Your task to perform on an android device: Add "alienware aurora" to the cart on costco.com Image 0: 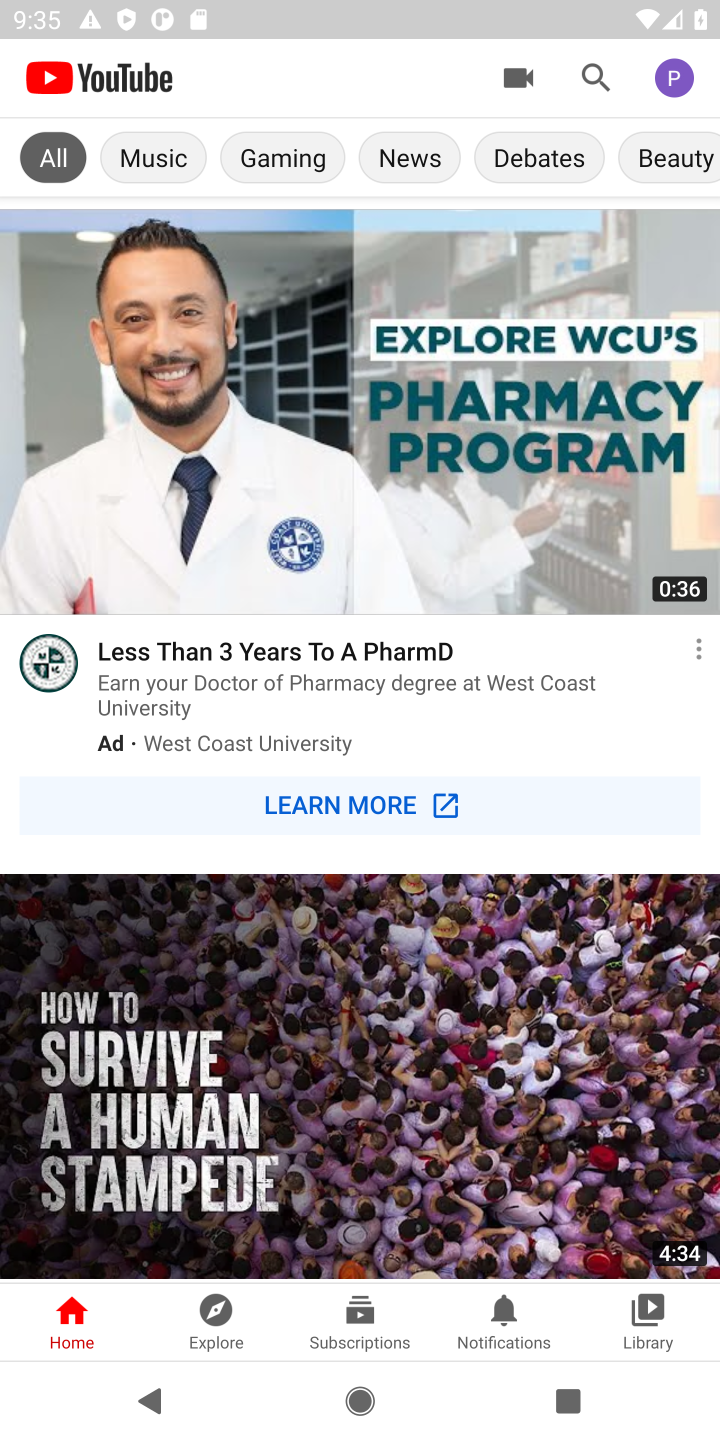
Step 0: press home button
Your task to perform on an android device: Add "alienware aurora" to the cart on costco.com Image 1: 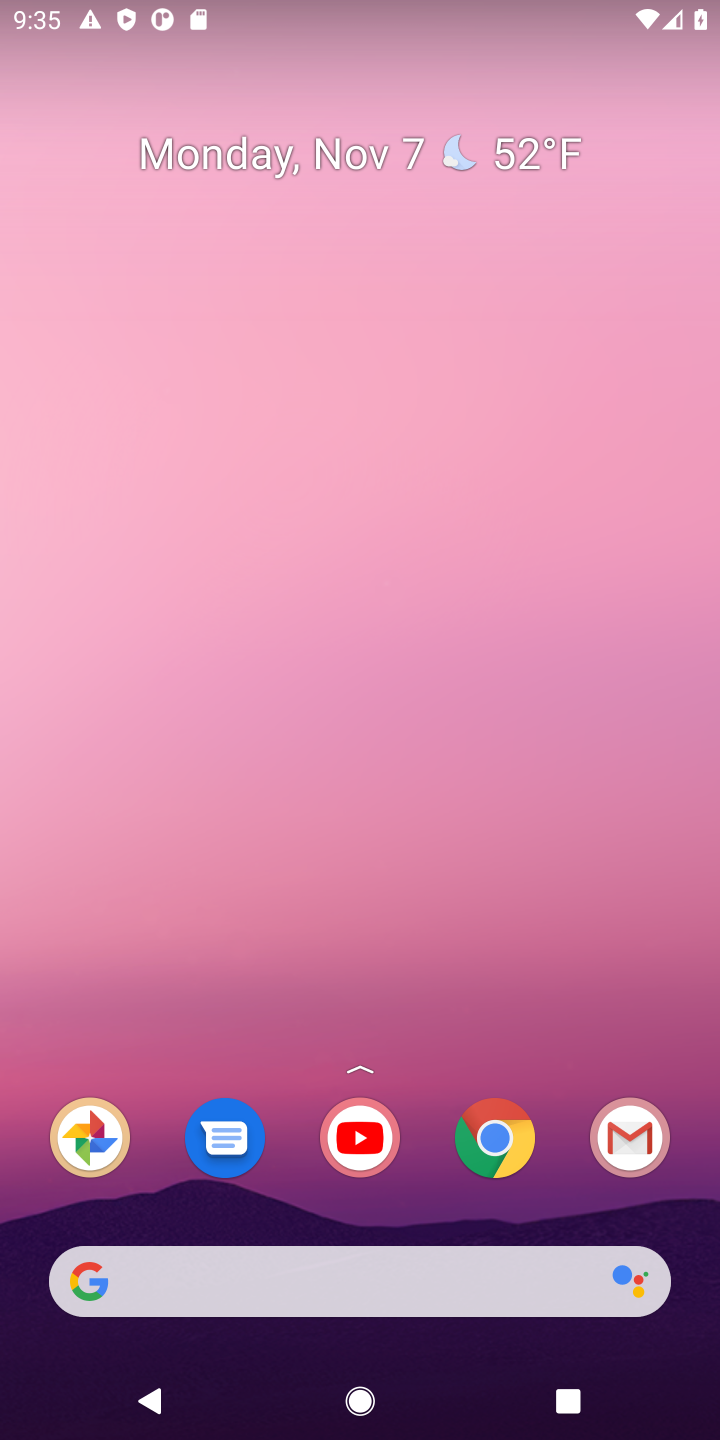
Step 1: drag from (419, 1201) to (400, 131)
Your task to perform on an android device: Add "alienware aurora" to the cart on costco.com Image 2: 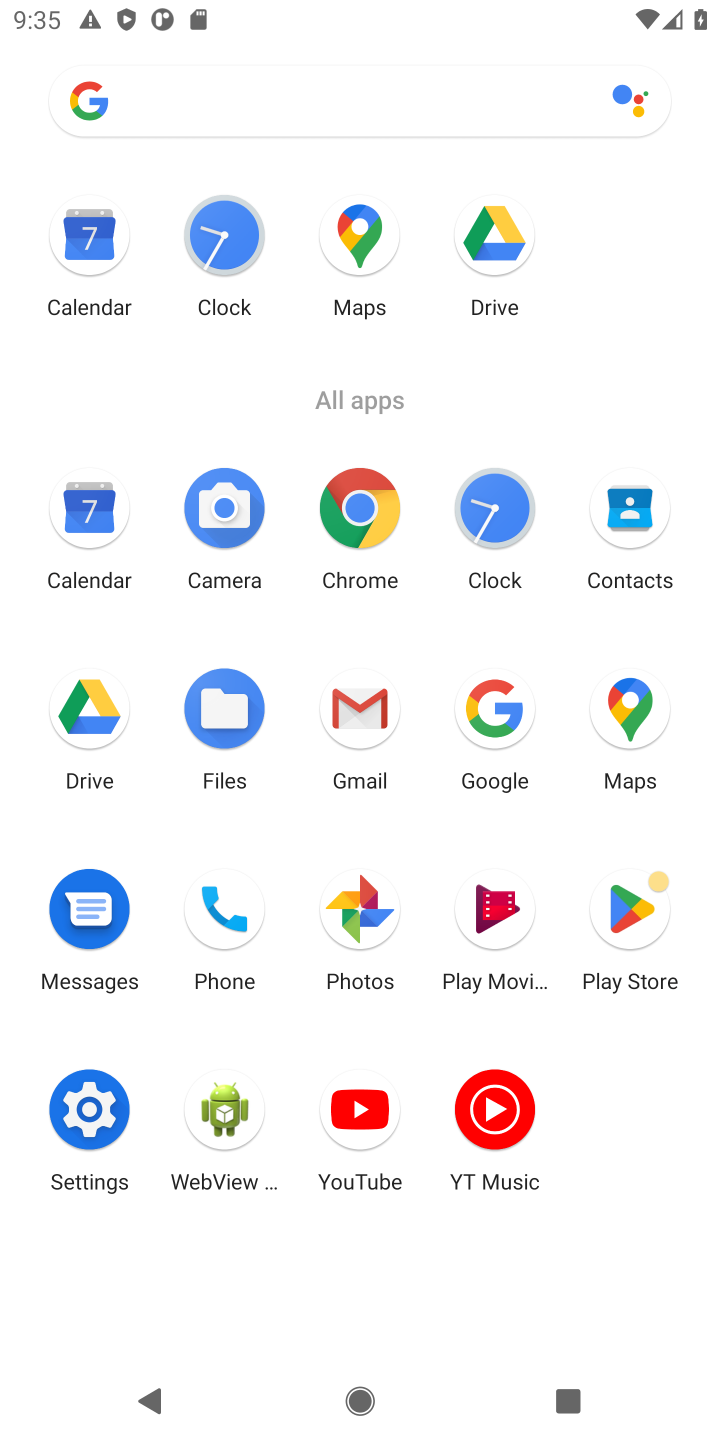
Step 2: click (354, 506)
Your task to perform on an android device: Add "alienware aurora" to the cart on costco.com Image 3: 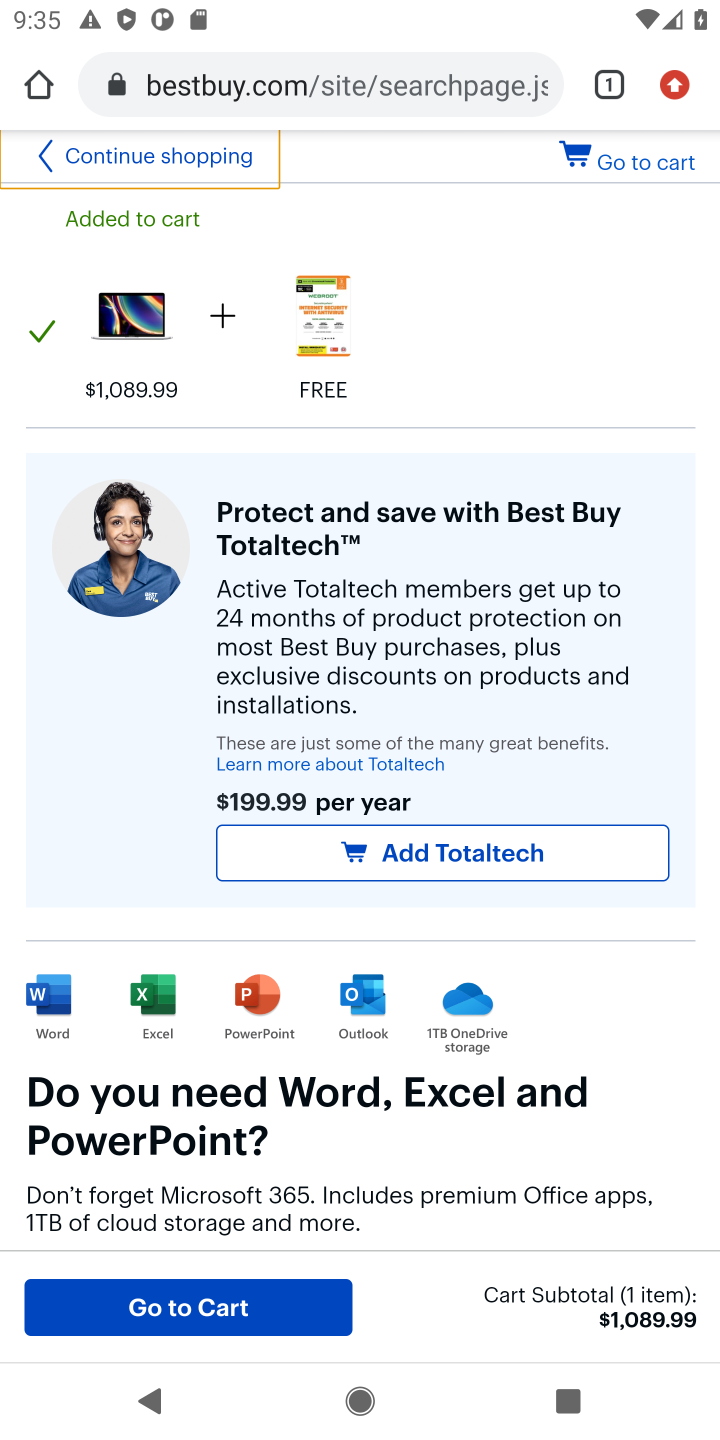
Step 3: click (388, 70)
Your task to perform on an android device: Add "alienware aurora" to the cart on costco.com Image 4: 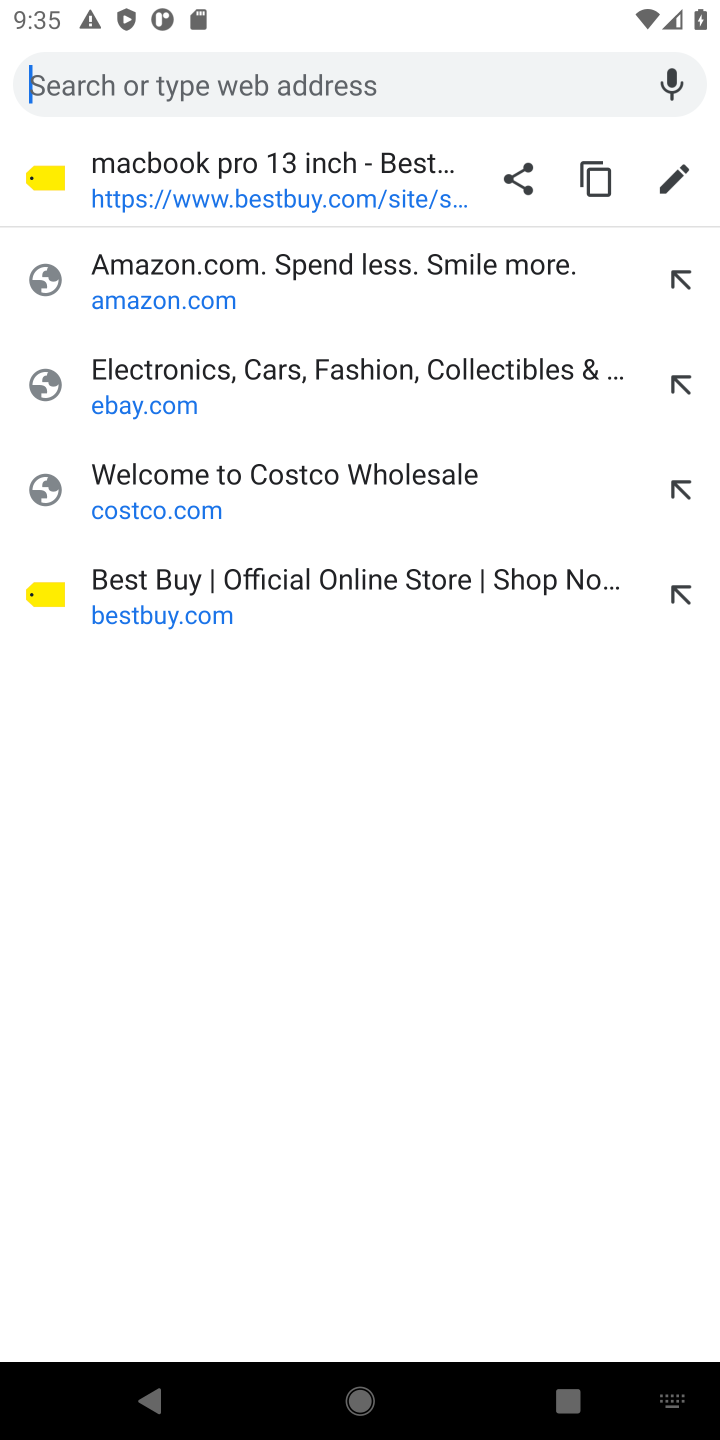
Step 4: click (140, 504)
Your task to perform on an android device: Add "alienware aurora" to the cart on costco.com Image 5: 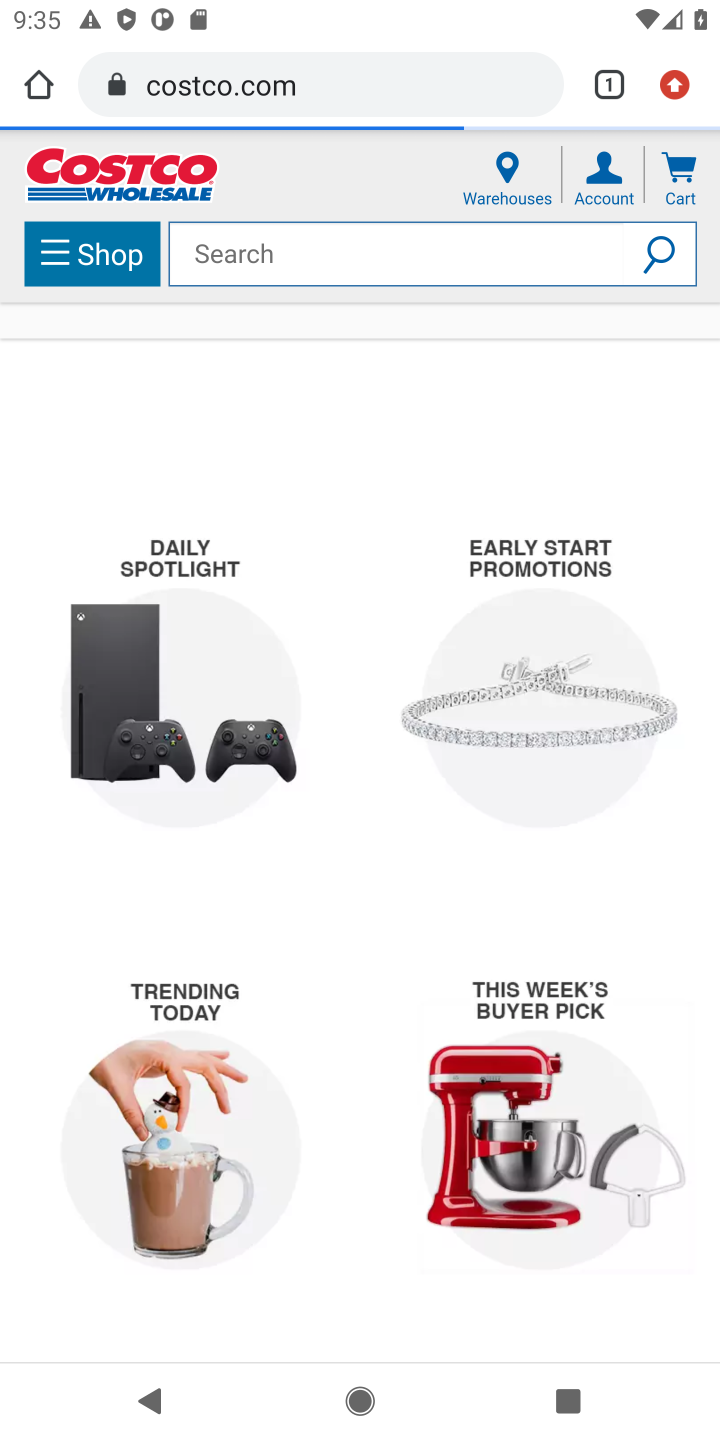
Step 5: click (227, 251)
Your task to perform on an android device: Add "alienware aurora" to the cart on costco.com Image 6: 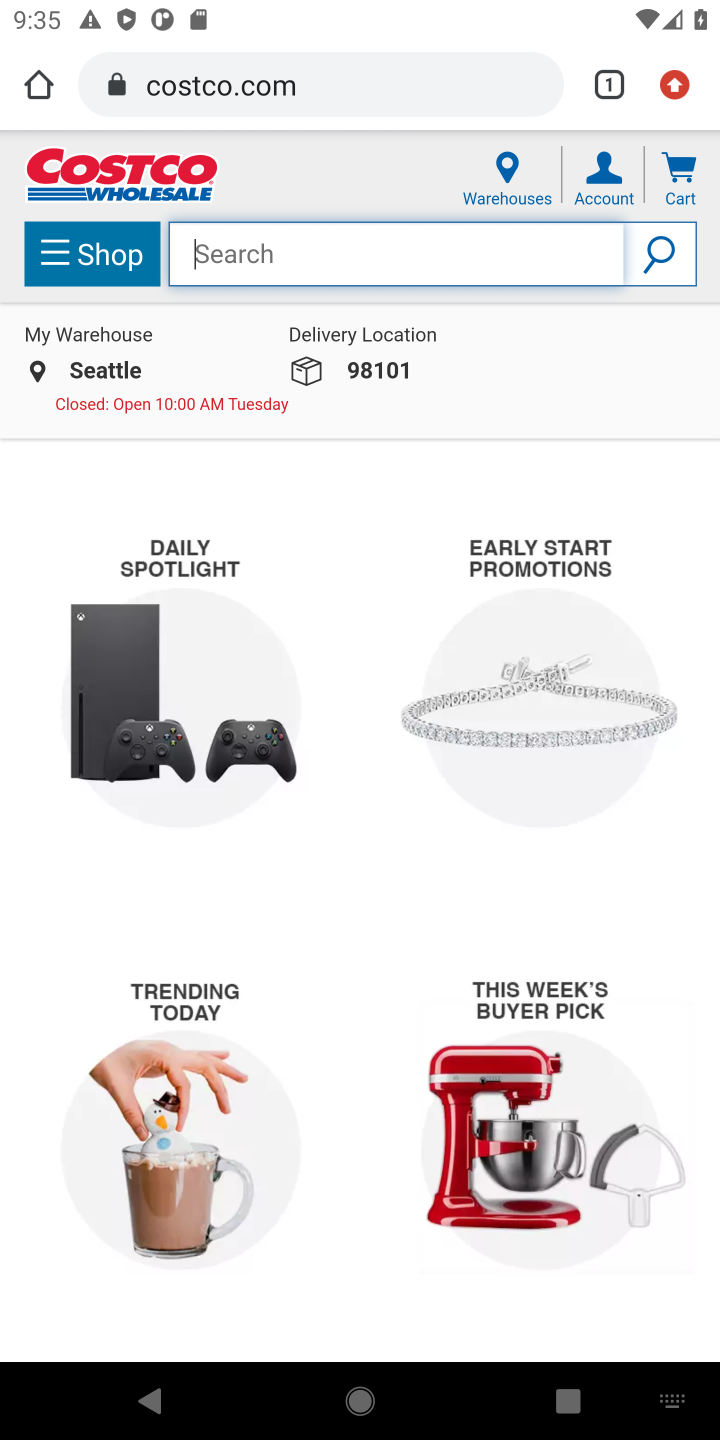
Step 6: type "alienware aurora"
Your task to perform on an android device: Add "alienware aurora" to the cart on costco.com Image 7: 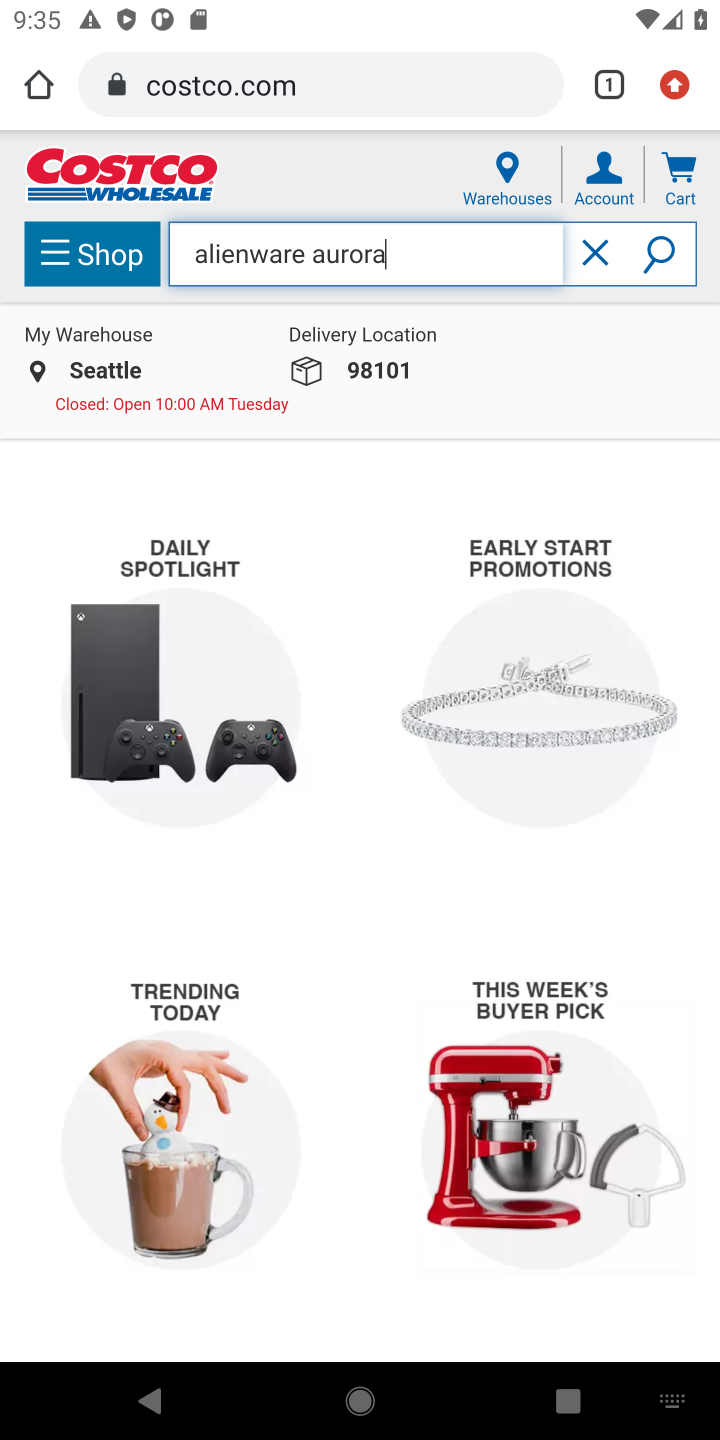
Step 7: press enter
Your task to perform on an android device: Add "alienware aurora" to the cart on costco.com Image 8: 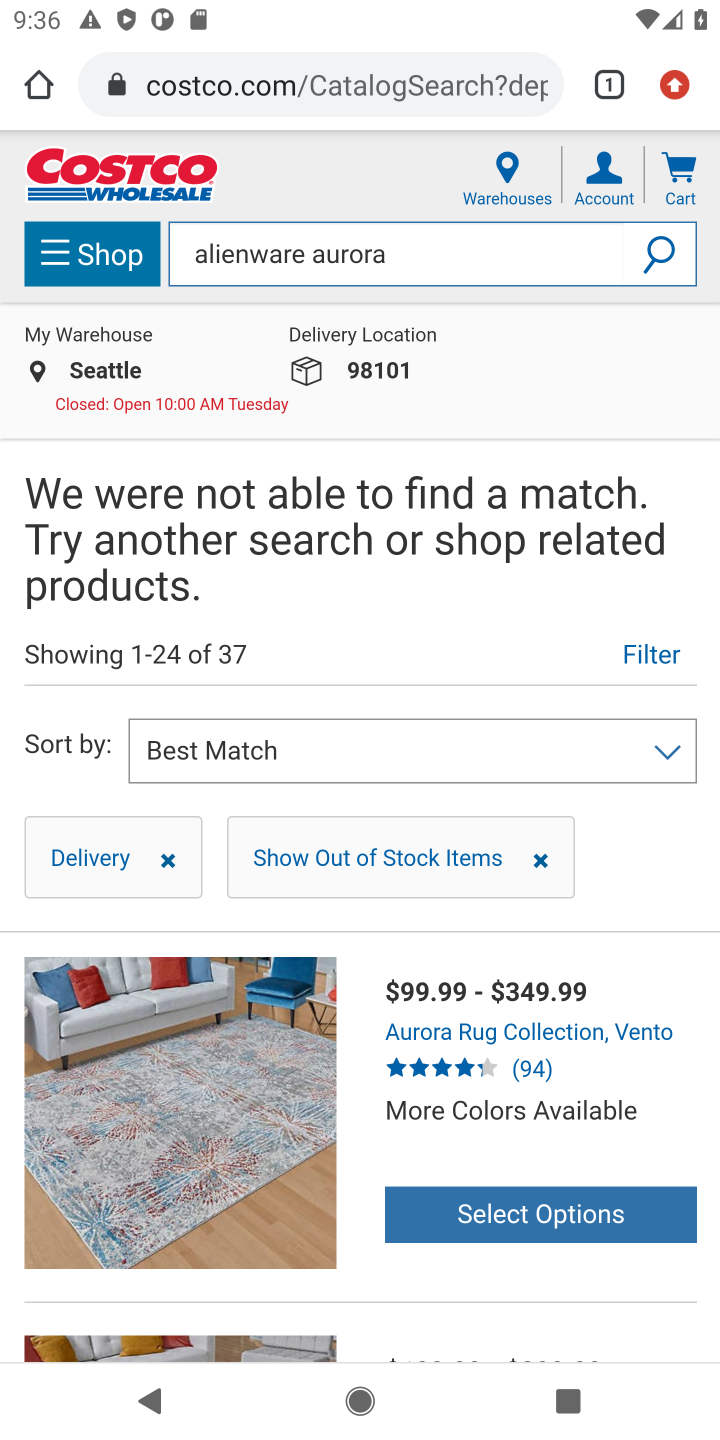
Step 8: task complete